Your task to perform on an android device: Do I have any events today? Image 0: 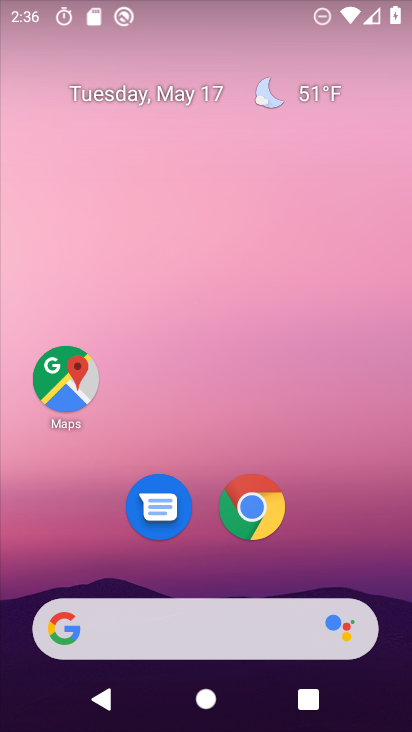
Step 0: drag from (218, 568) to (218, 177)
Your task to perform on an android device: Do I have any events today? Image 1: 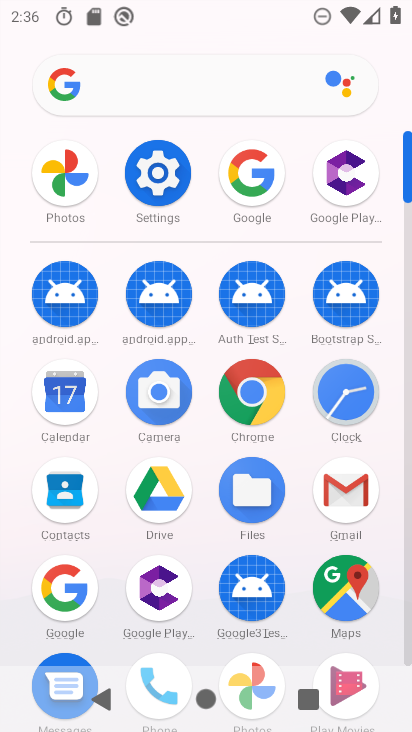
Step 1: click (67, 398)
Your task to perform on an android device: Do I have any events today? Image 2: 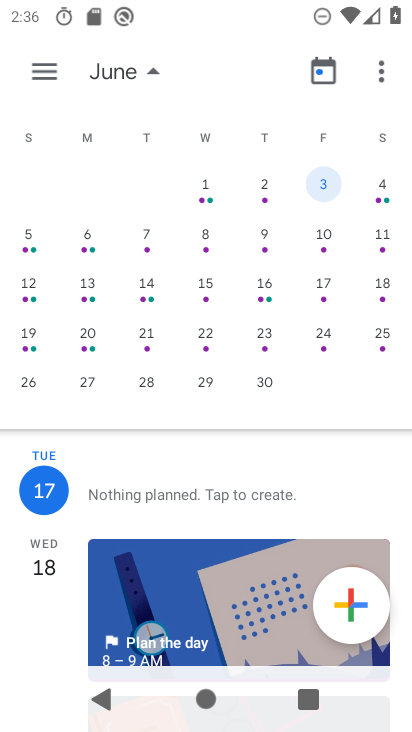
Step 2: drag from (84, 404) to (386, 367)
Your task to perform on an android device: Do I have any events today? Image 3: 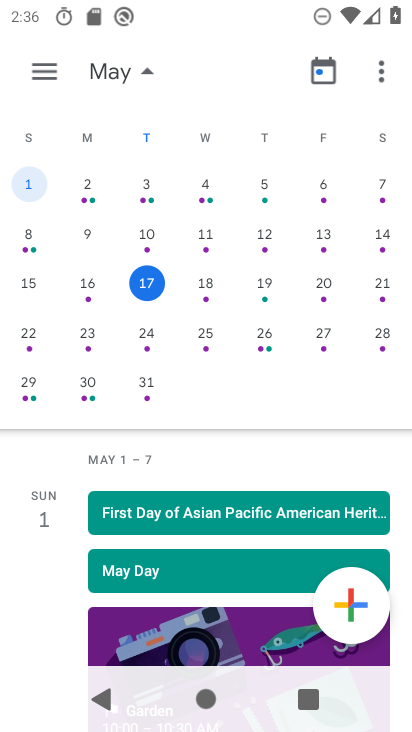
Step 3: click (150, 284)
Your task to perform on an android device: Do I have any events today? Image 4: 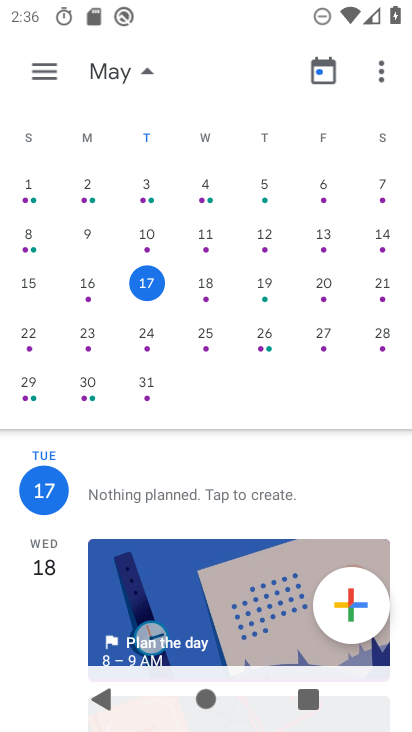
Step 4: task complete